Your task to perform on an android device: View the shopping cart on bestbuy.com. Image 0: 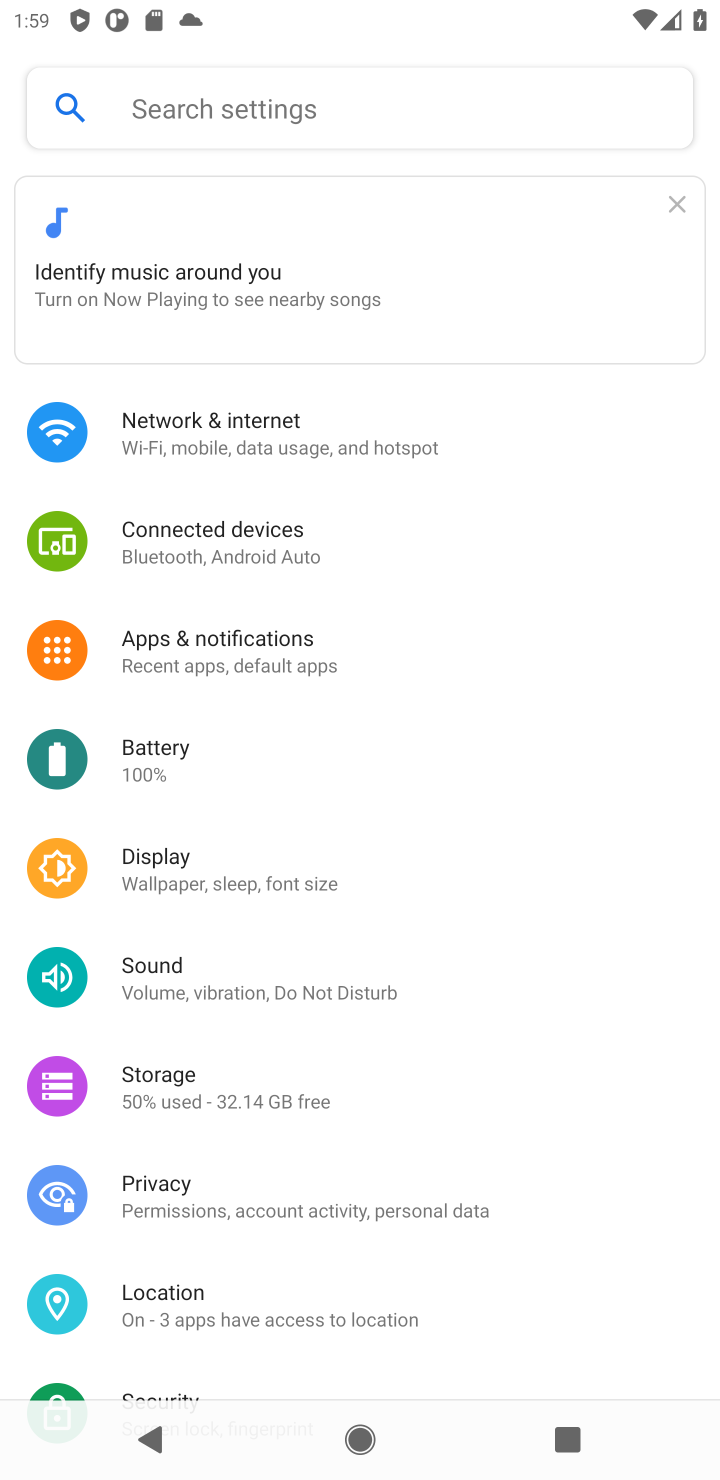
Step 0: press home button
Your task to perform on an android device: View the shopping cart on bestbuy.com. Image 1: 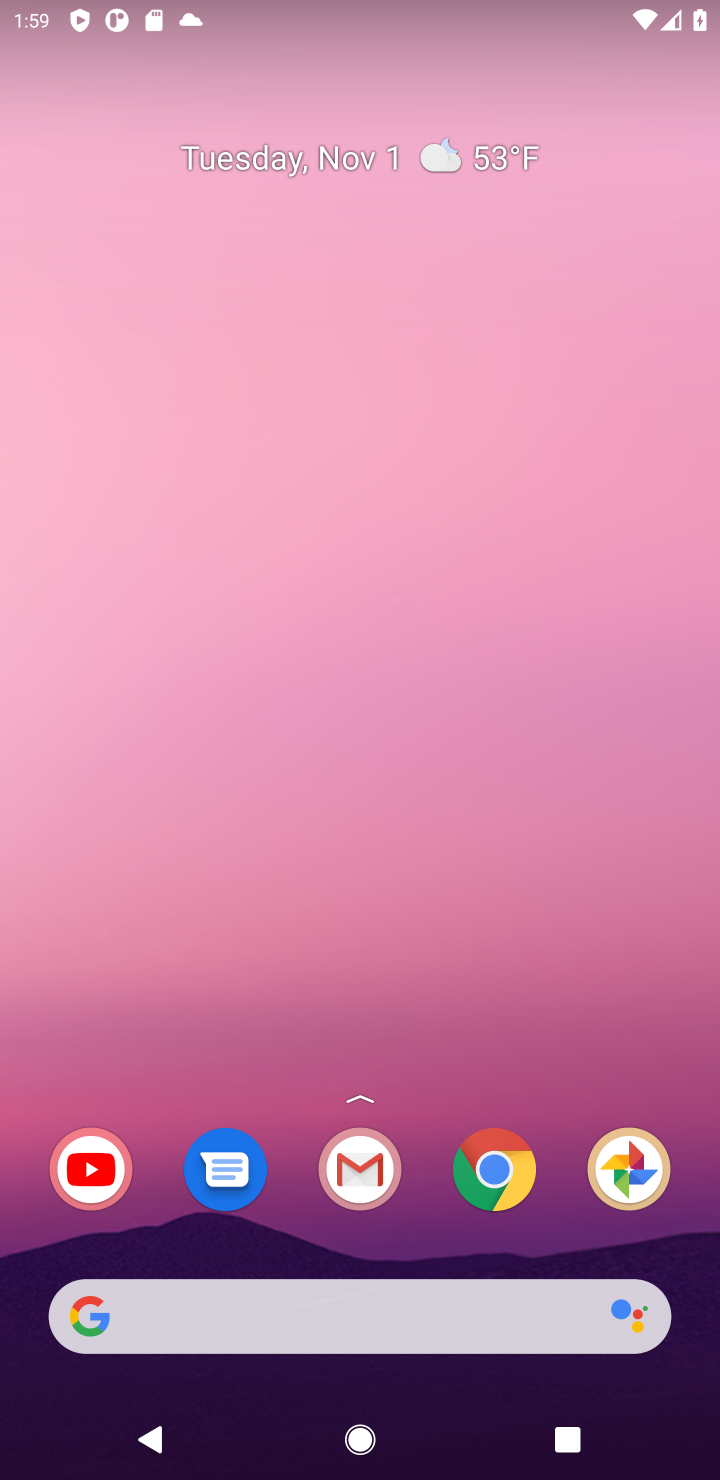
Step 1: click (454, 1178)
Your task to perform on an android device: View the shopping cart on bestbuy.com. Image 2: 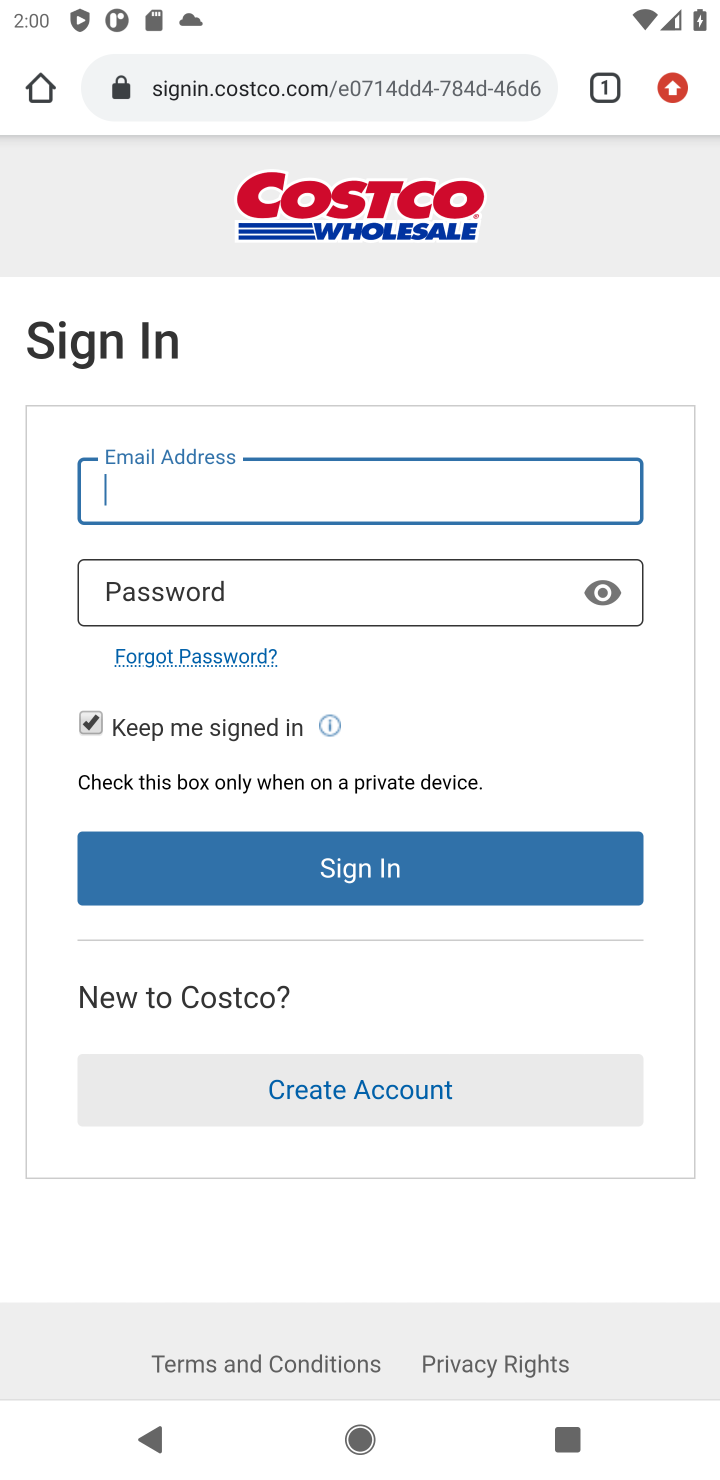
Step 2: click (187, 57)
Your task to perform on an android device: View the shopping cart on bestbuy.com. Image 3: 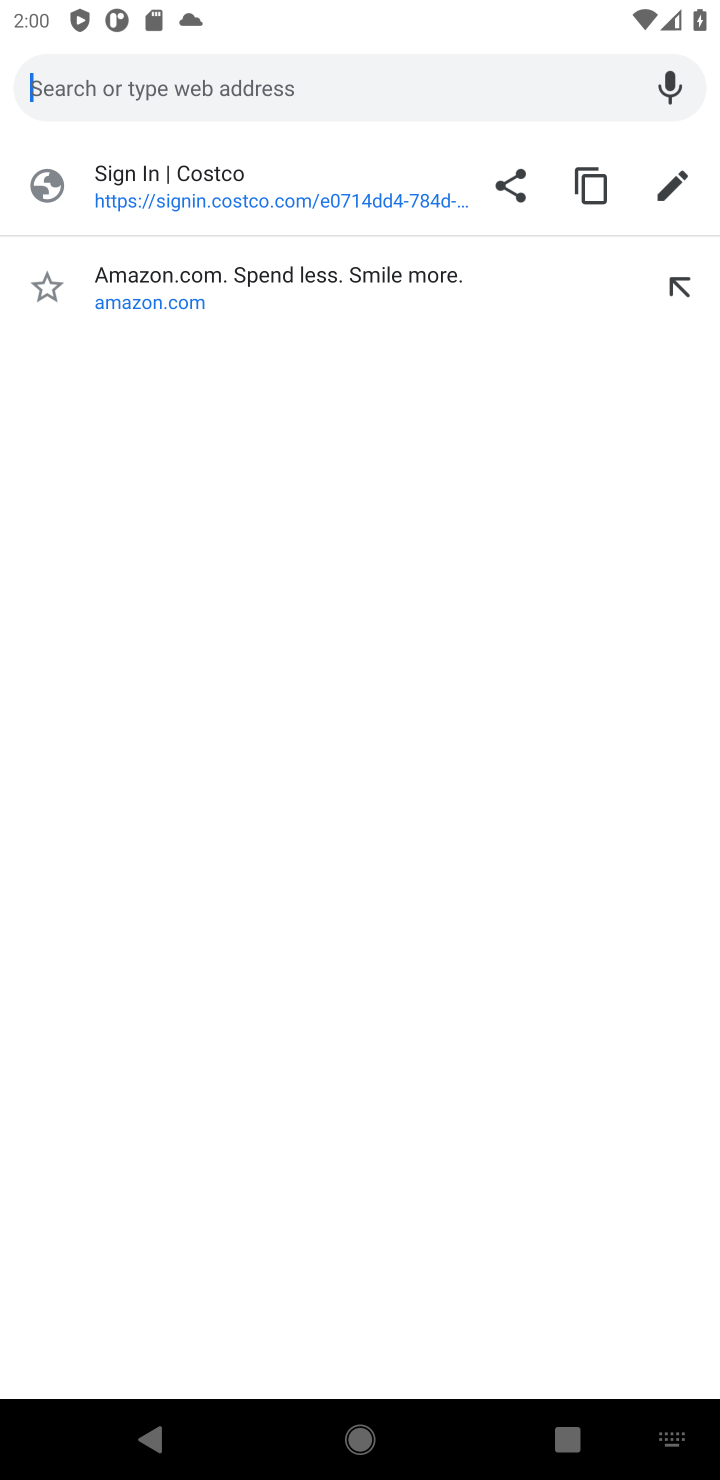
Step 3: type "bestbuy"
Your task to perform on an android device: View the shopping cart on bestbuy.com. Image 4: 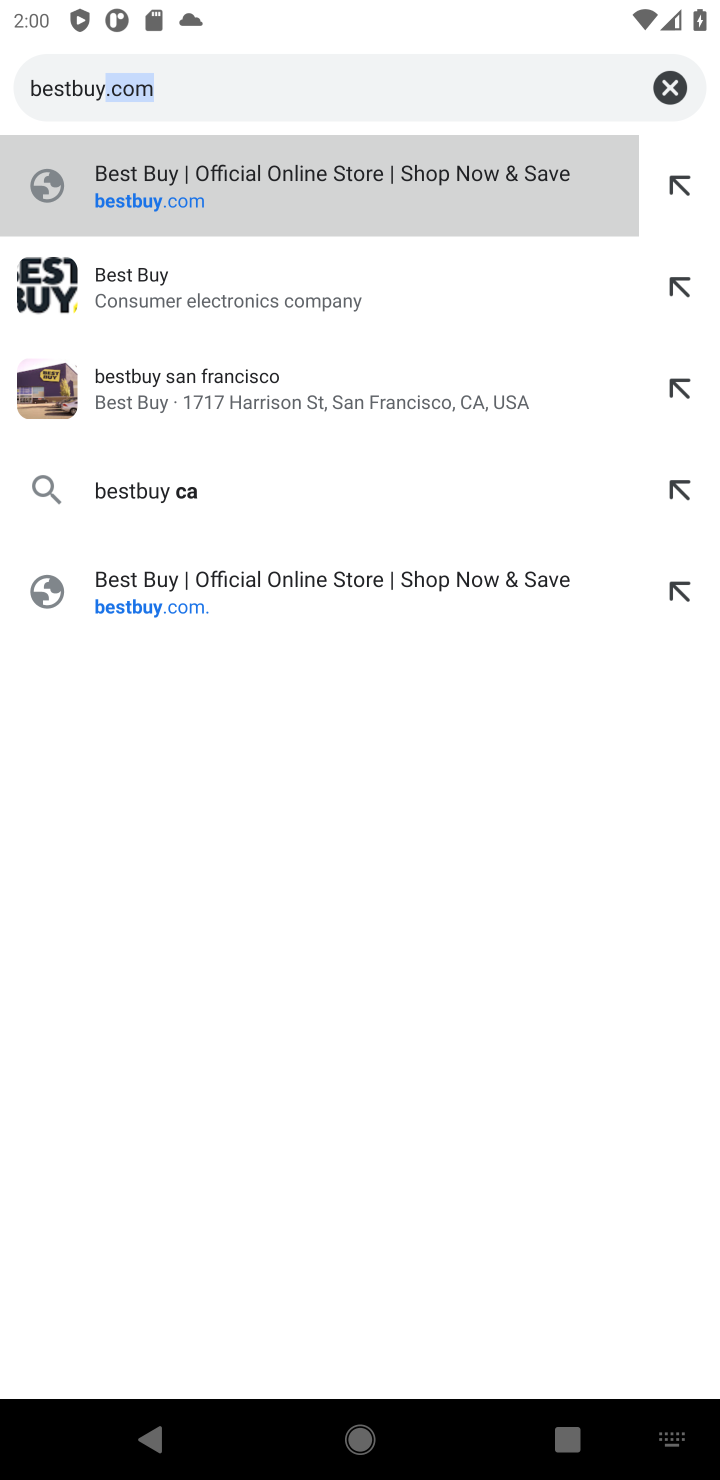
Step 4: click (344, 168)
Your task to perform on an android device: View the shopping cart on bestbuy.com. Image 5: 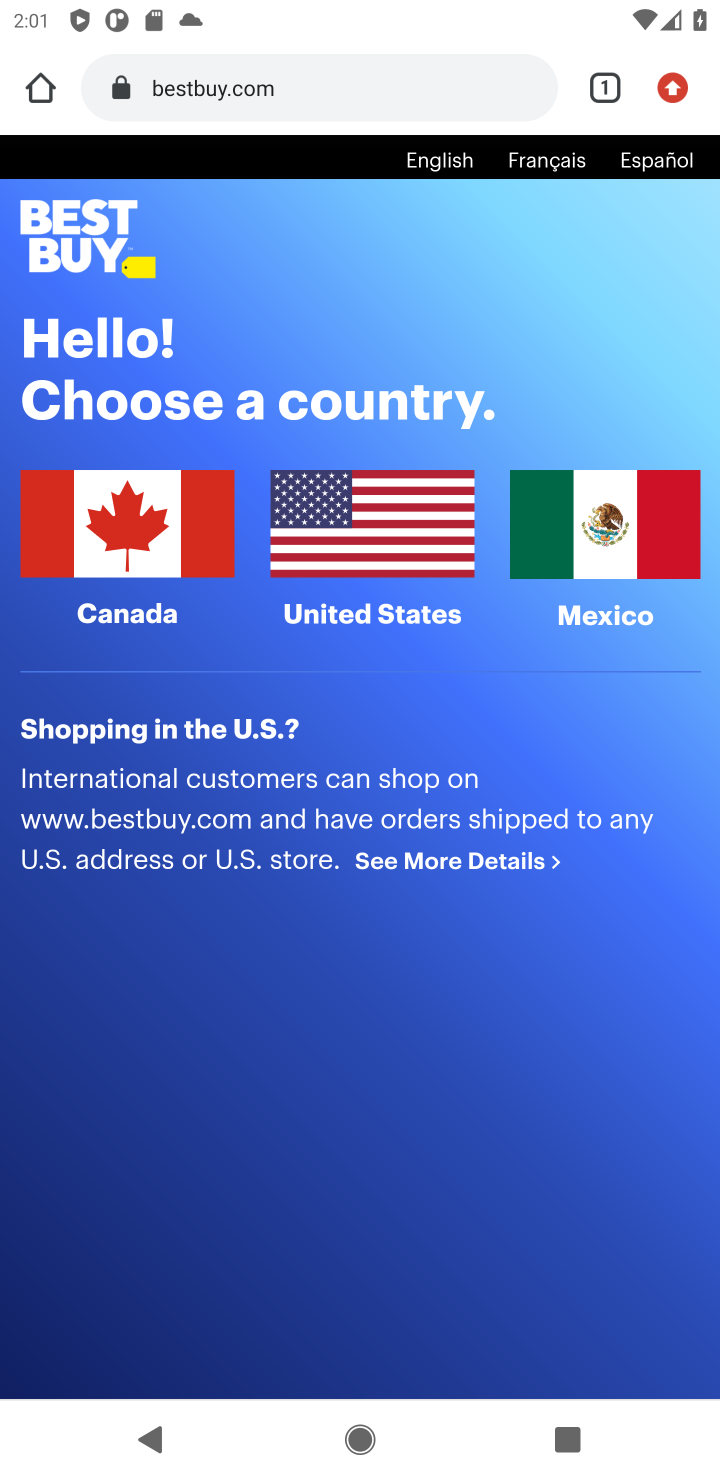
Step 5: click (295, 505)
Your task to perform on an android device: View the shopping cart on bestbuy.com. Image 6: 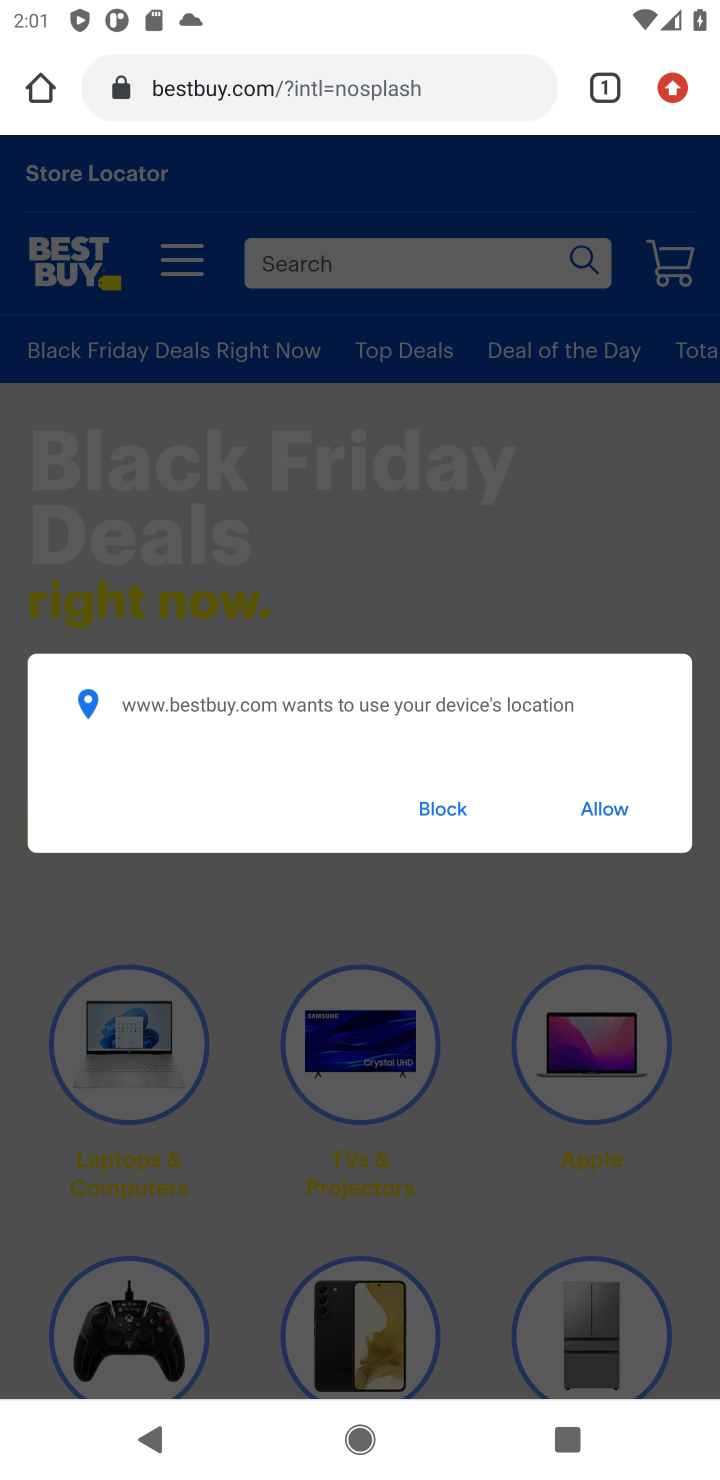
Step 6: click (671, 282)
Your task to perform on an android device: View the shopping cart on bestbuy.com. Image 7: 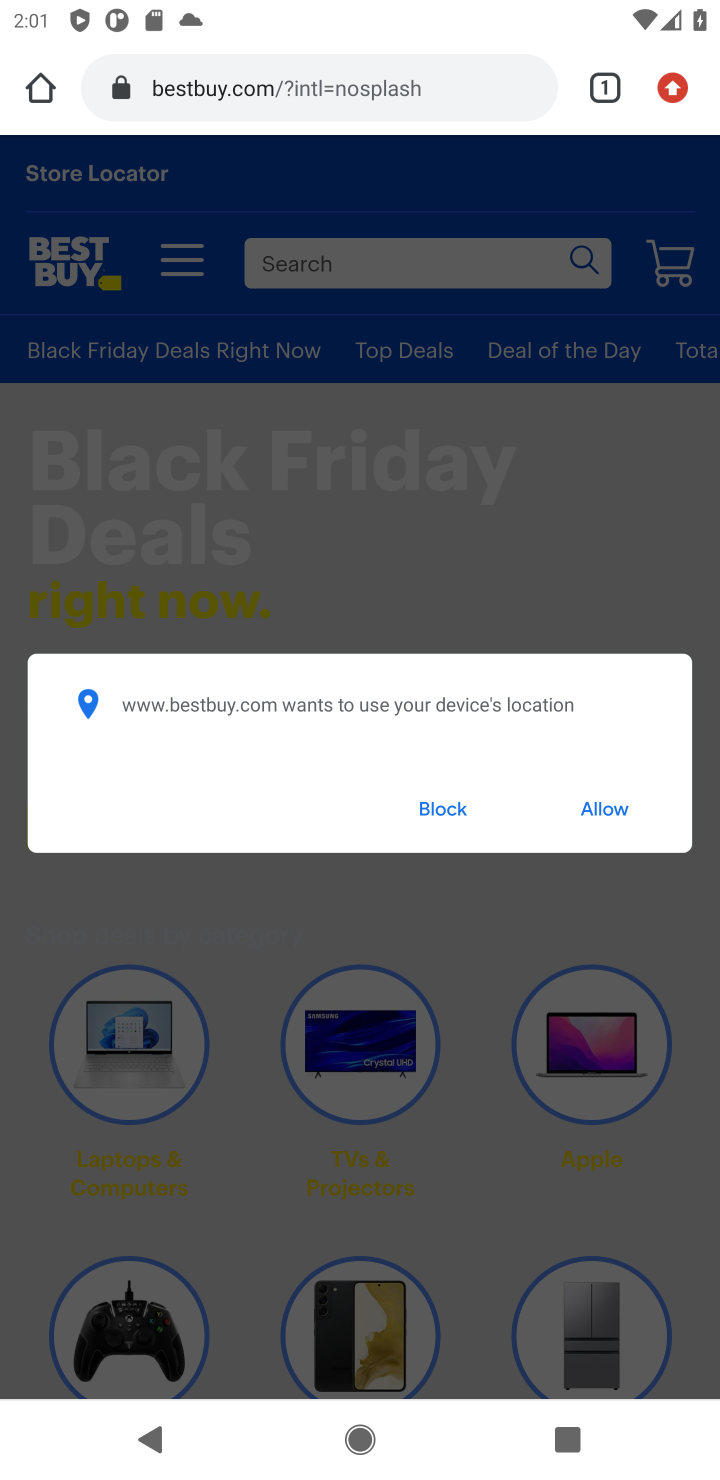
Step 7: click (587, 823)
Your task to perform on an android device: View the shopping cart on bestbuy.com. Image 8: 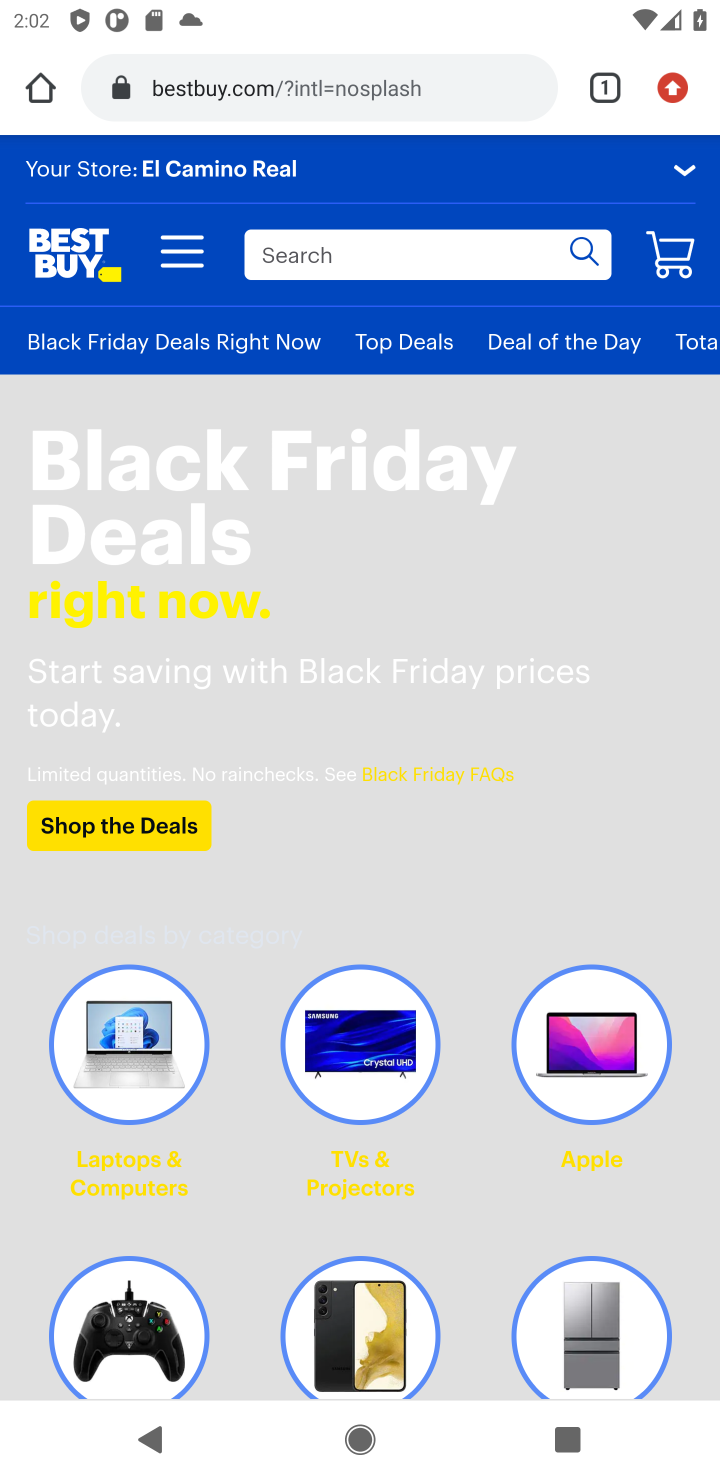
Step 8: click (660, 269)
Your task to perform on an android device: View the shopping cart on bestbuy.com. Image 9: 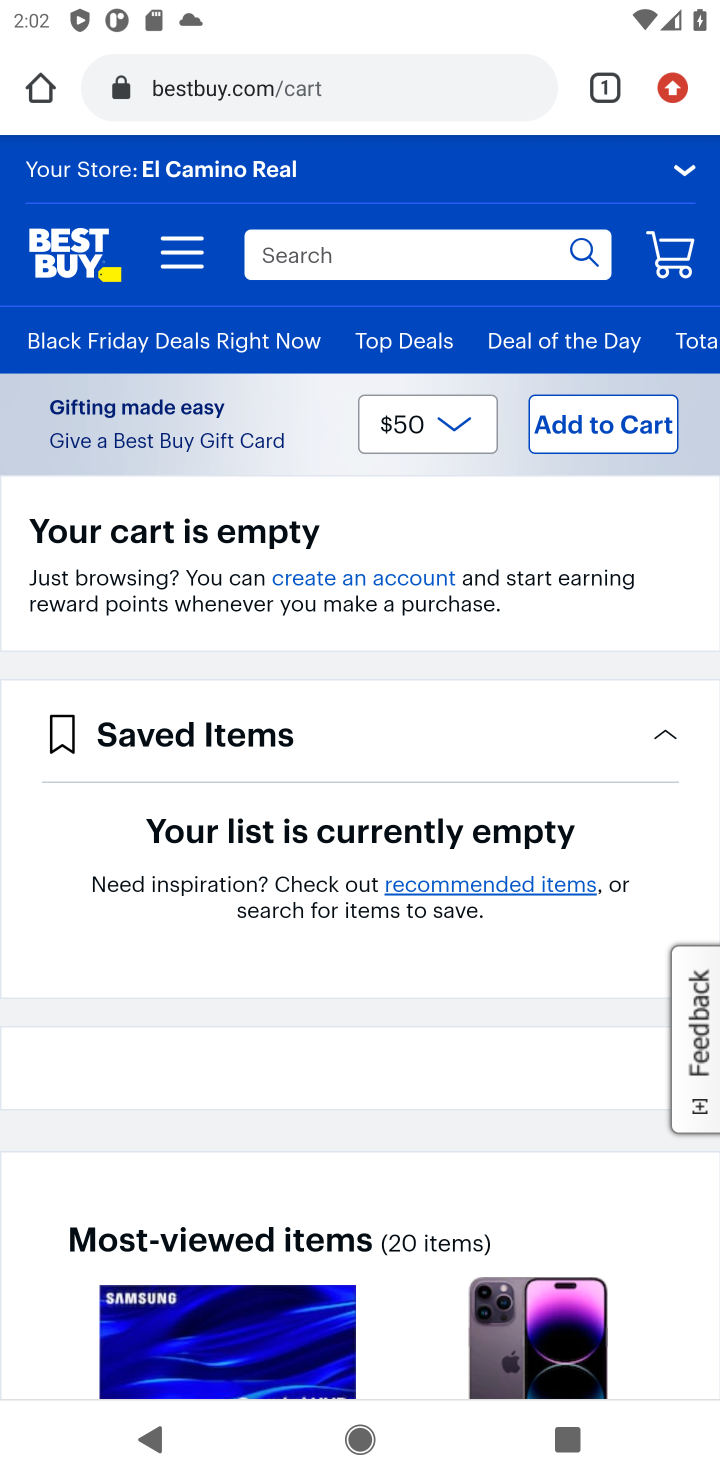
Step 9: task complete